Your task to perform on an android device: open app "Nova Launcher" (install if not already installed) and go to login screen Image 0: 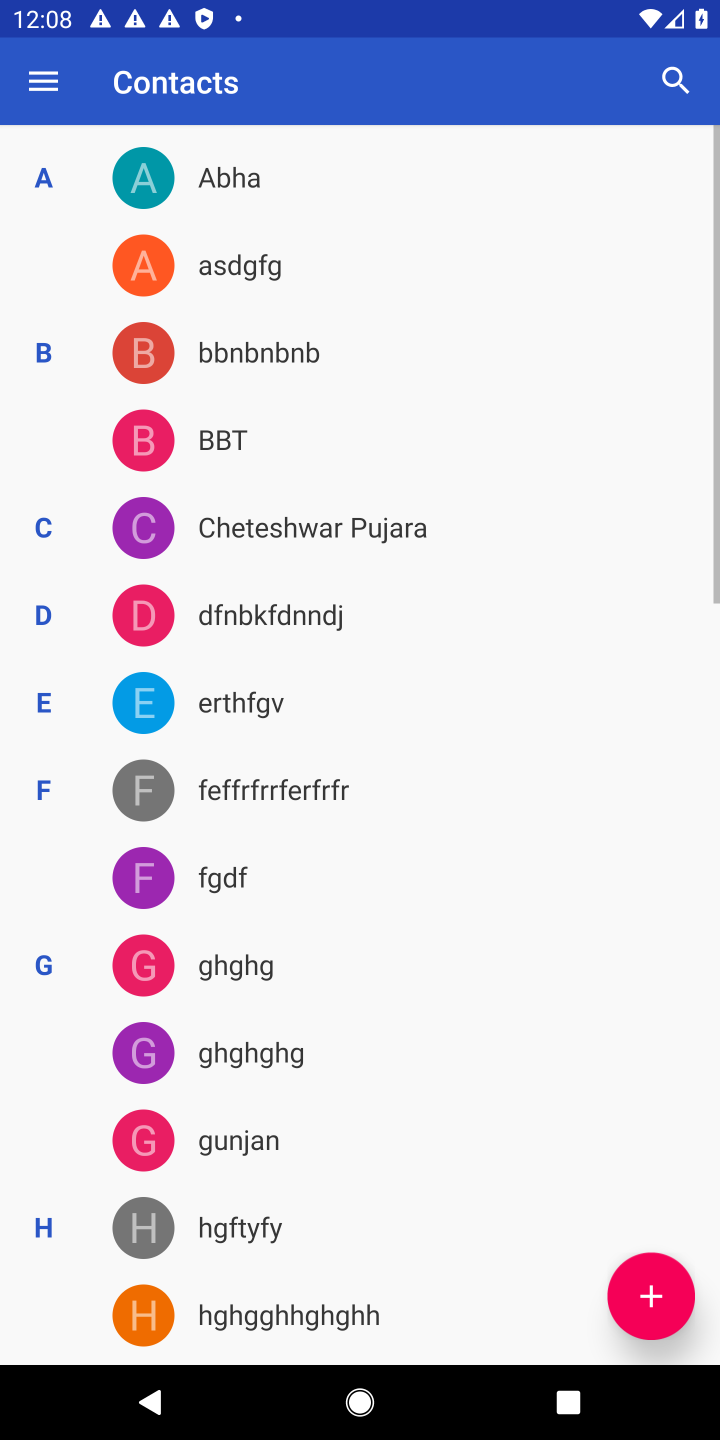
Step 0: press back button
Your task to perform on an android device: open app "Nova Launcher" (install if not already installed) and go to login screen Image 1: 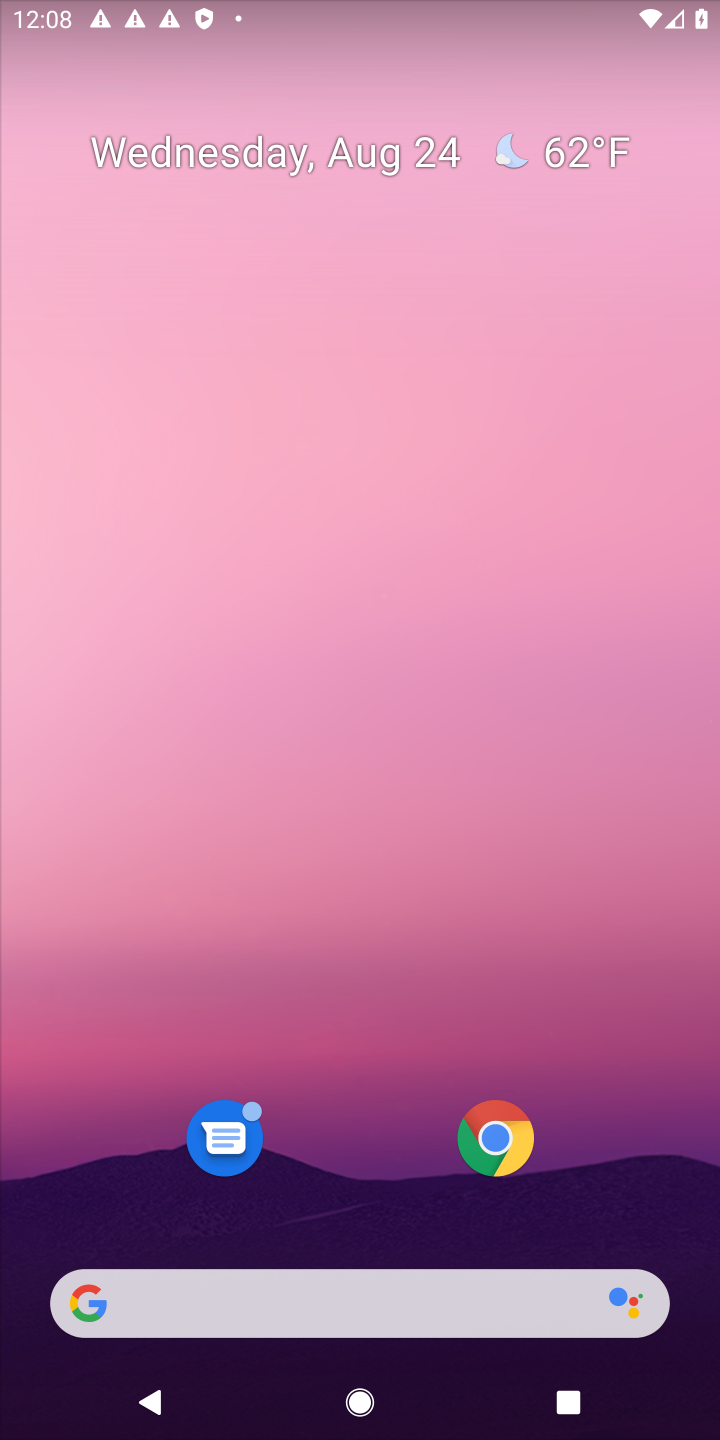
Step 1: drag from (382, 950) to (420, 133)
Your task to perform on an android device: open app "Nova Launcher" (install if not already installed) and go to login screen Image 2: 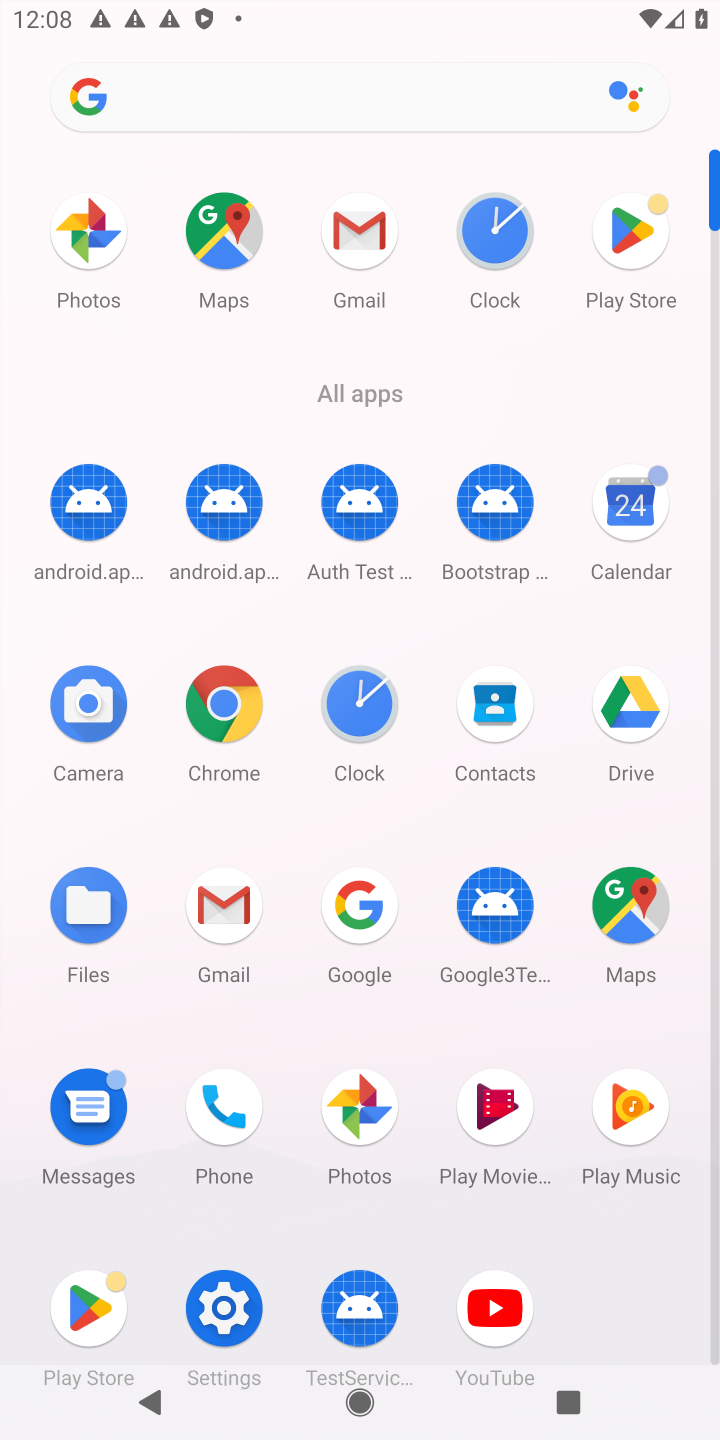
Step 2: click (618, 228)
Your task to perform on an android device: open app "Nova Launcher" (install if not already installed) and go to login screen Image 3: 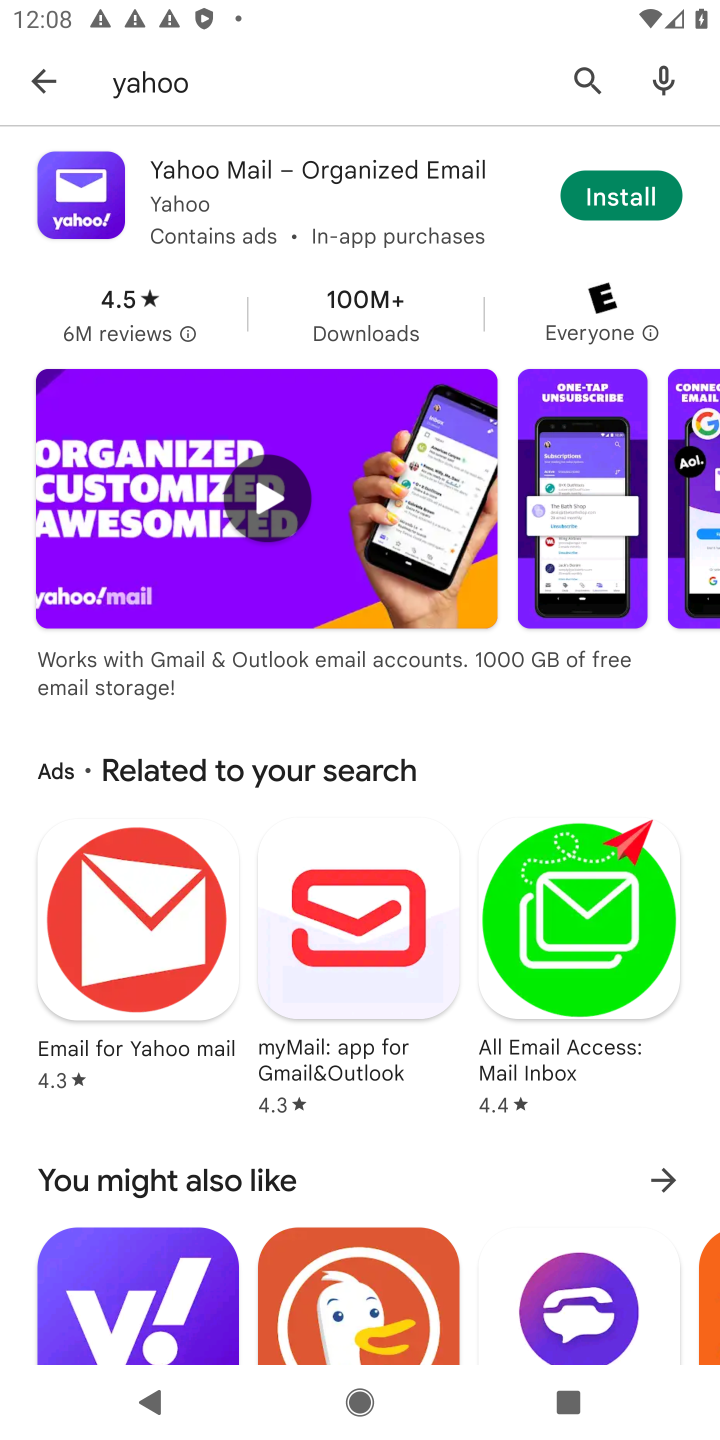
Step 3: click (578, 76)
Your task to perform on an android device: open app "Nova Launcher" (install if not already installed) and go to login screen Image 4: 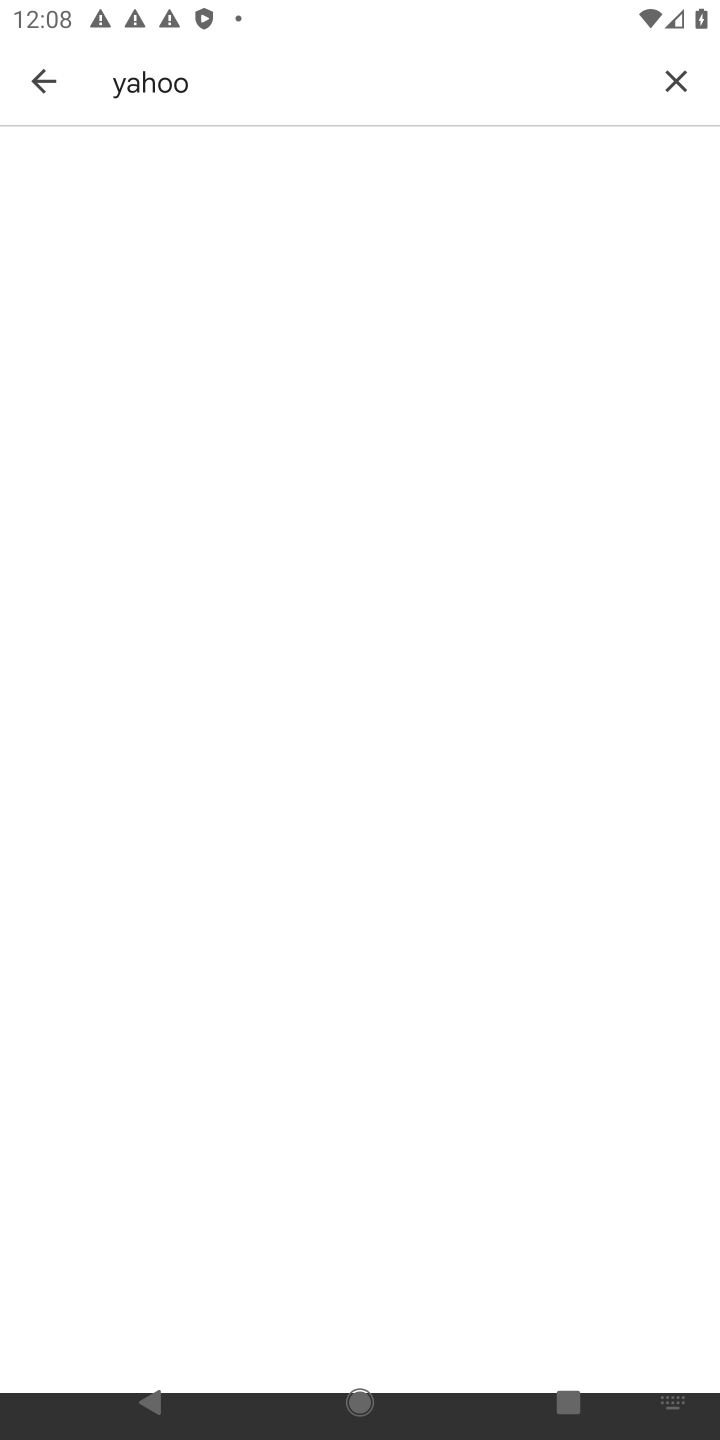
Step 4: click (662, 78)
Your task to perform on an android device: open app "Nova Launcher" (install if not already installed) and go to login screen Image 5: 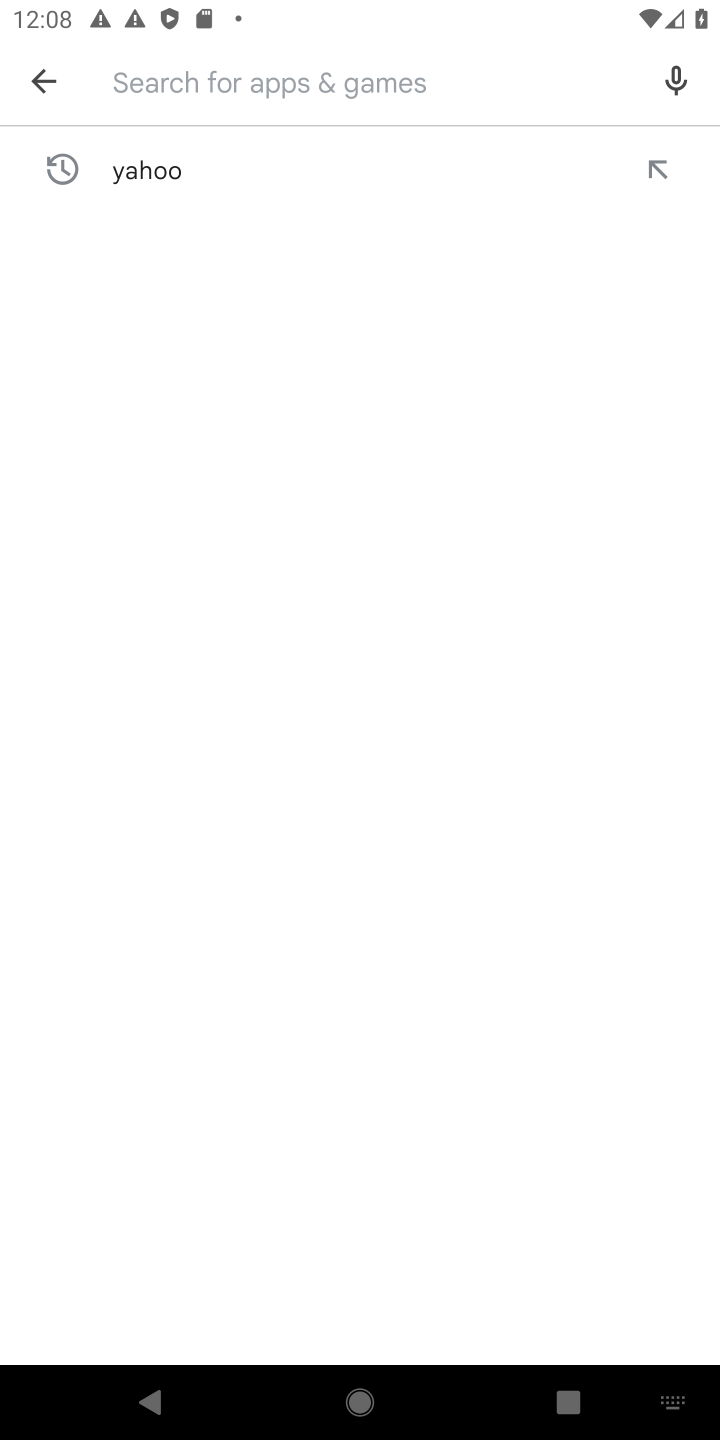
Step 5: click (221, 90)
Your task to perform on an android device: open app "Nova Launcher" (install if not already installed) and go to login screen Image 6: 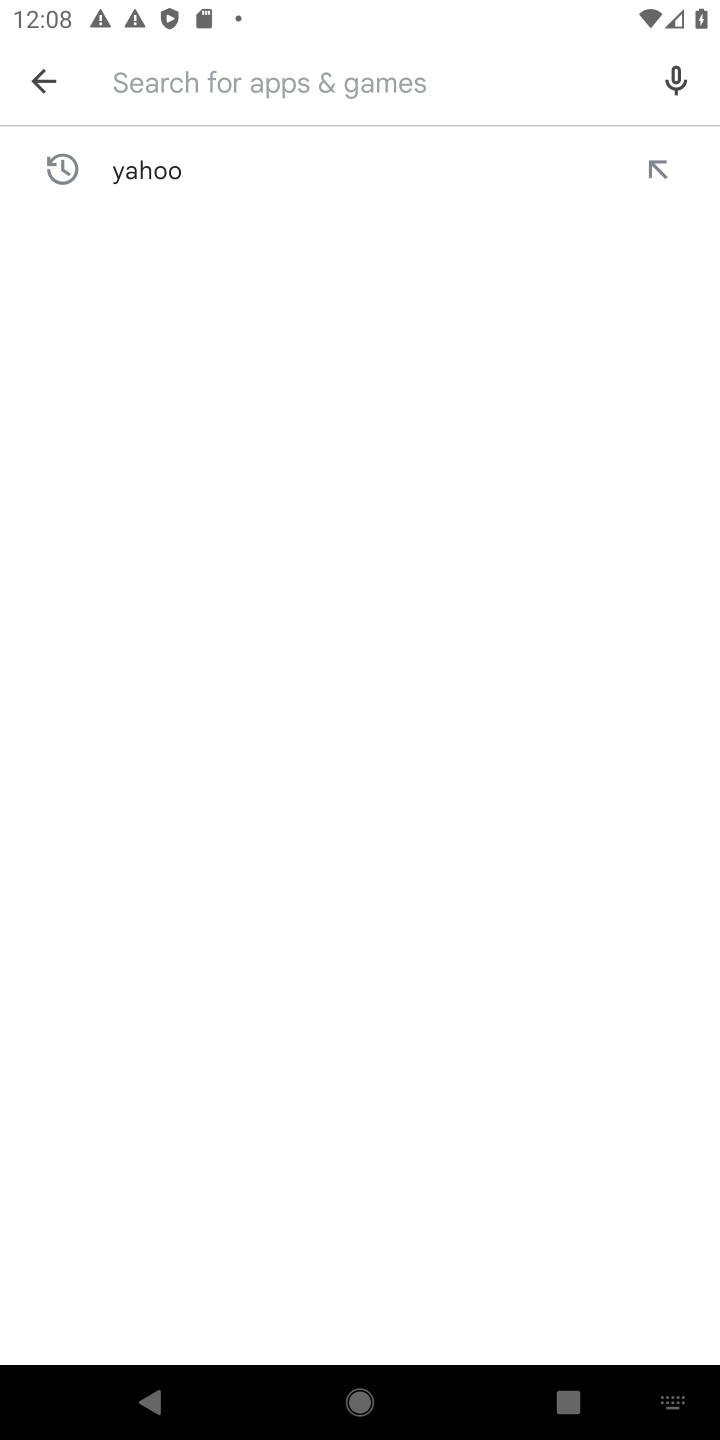
Step 6: type "Nova Launcher"
Your task to perform on an android device: open app "Nova Launcher" (install if not already installed) and go to login screen Image 7: 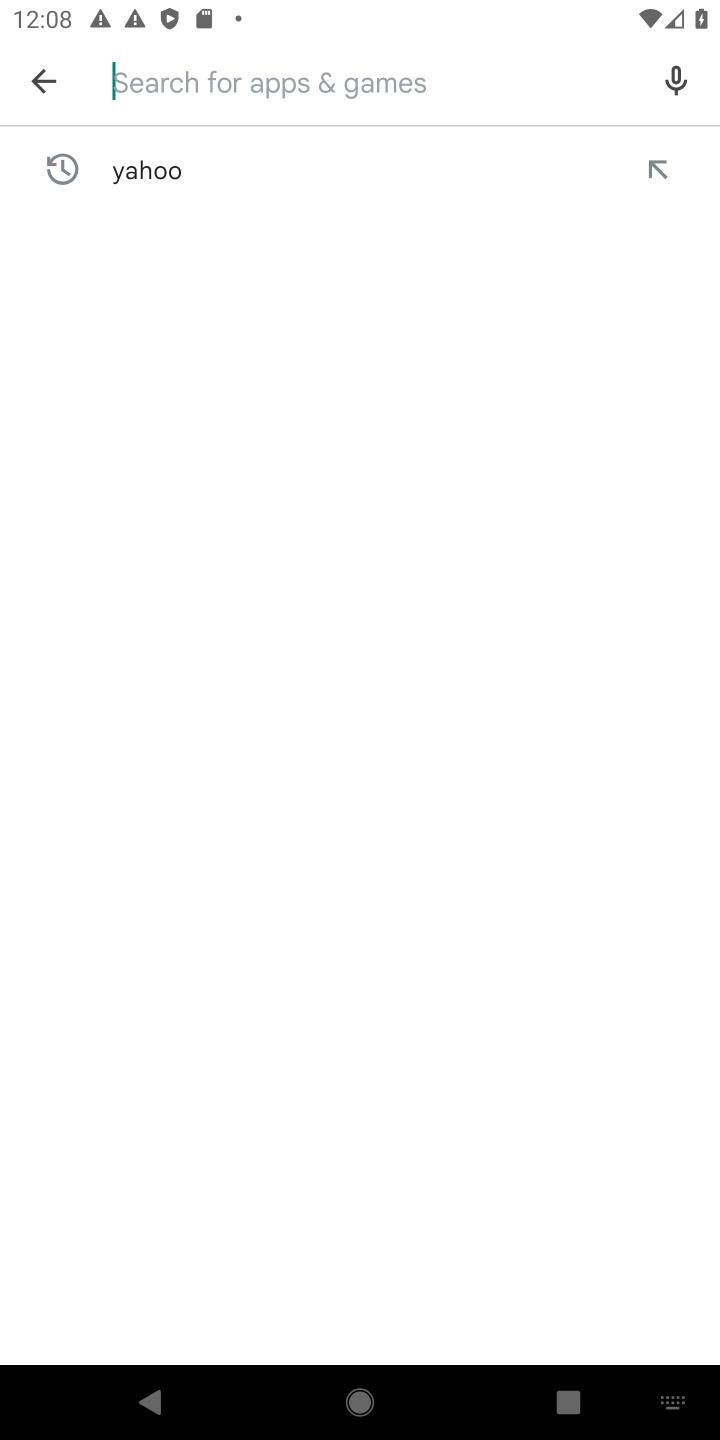
Step 7: click (312, 943)
Your task to perform on an android device: open app "Nova Launcher" (install if not already installed) and go to login screen Image 8: 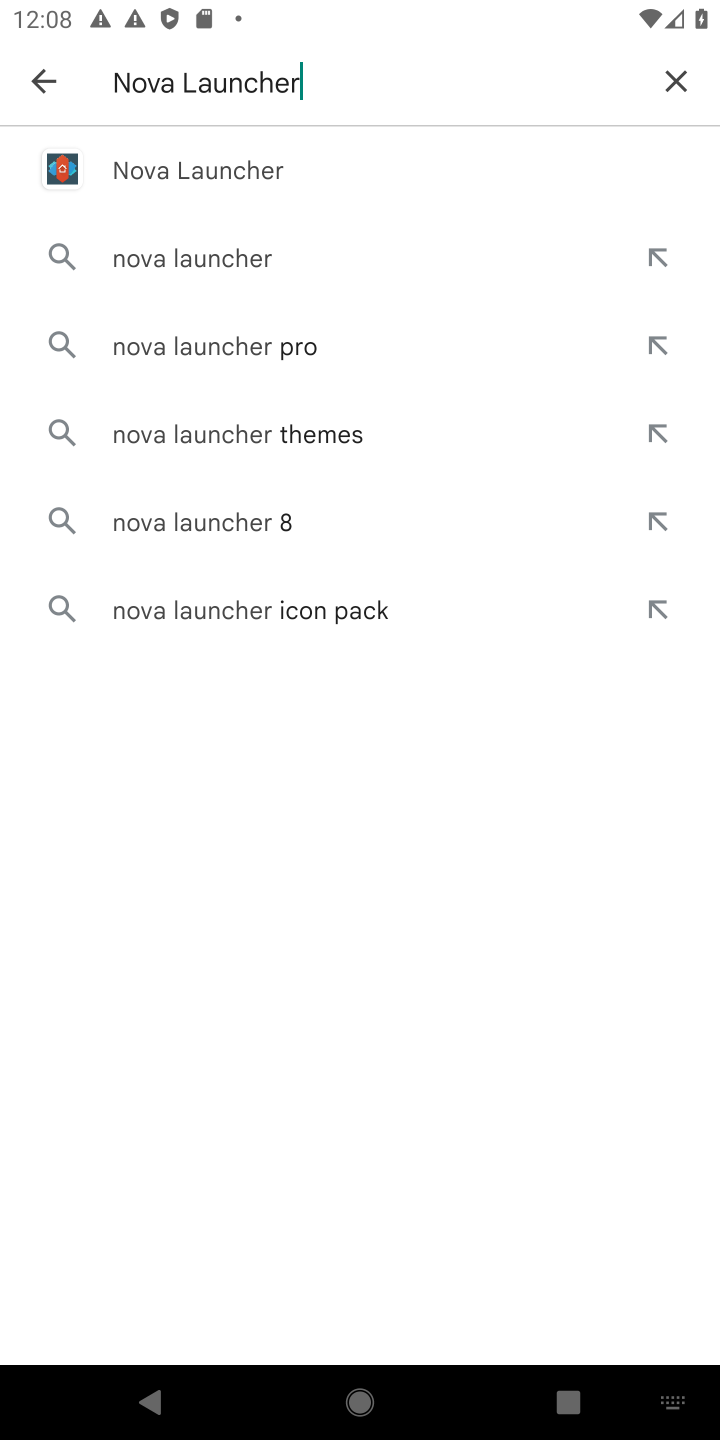
Step 8: click (335, 162)
Your task to perform on an android device: open app "Nova Launcher" (install if not already installed) and go to login screen Image 9: 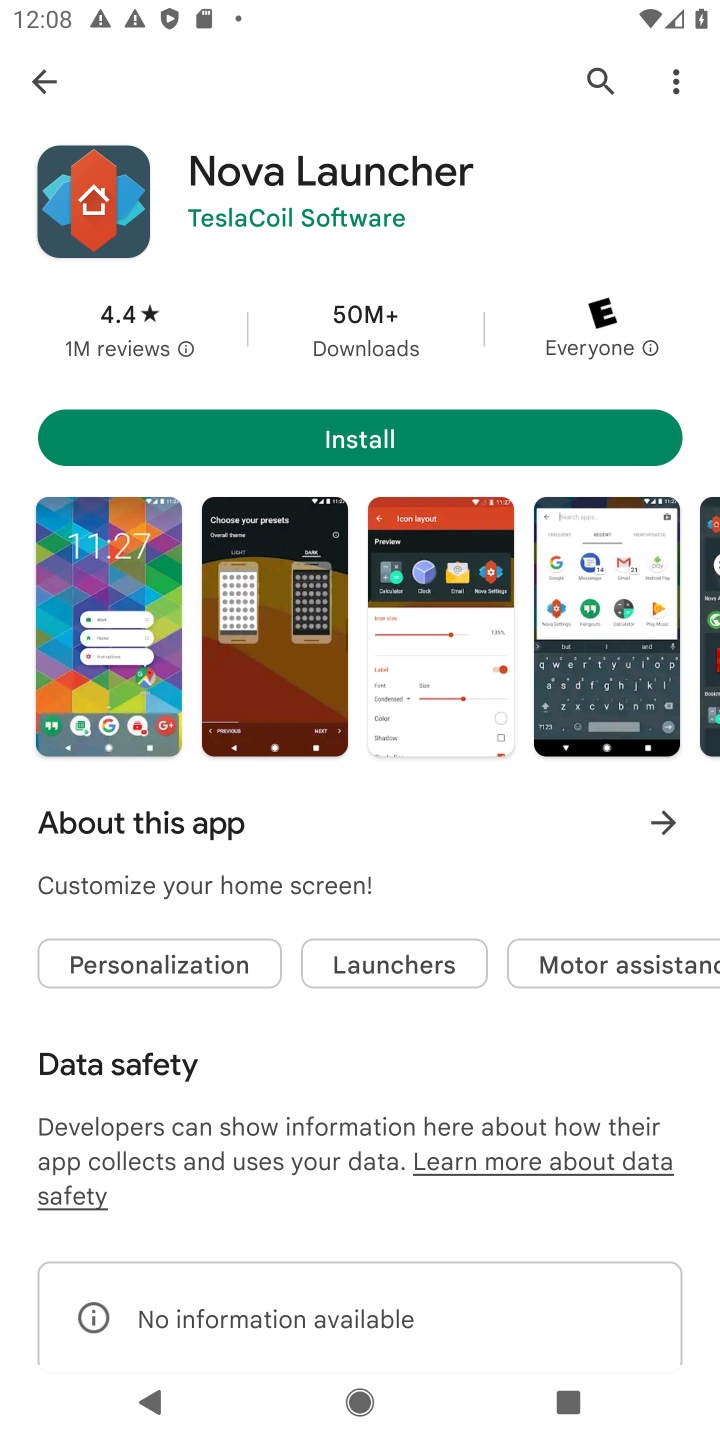
Step 9: click (308, 444)
Your task to perform on an android device: open app "Nova Launcher" (install if not already installed) and go to login screen Image 10: 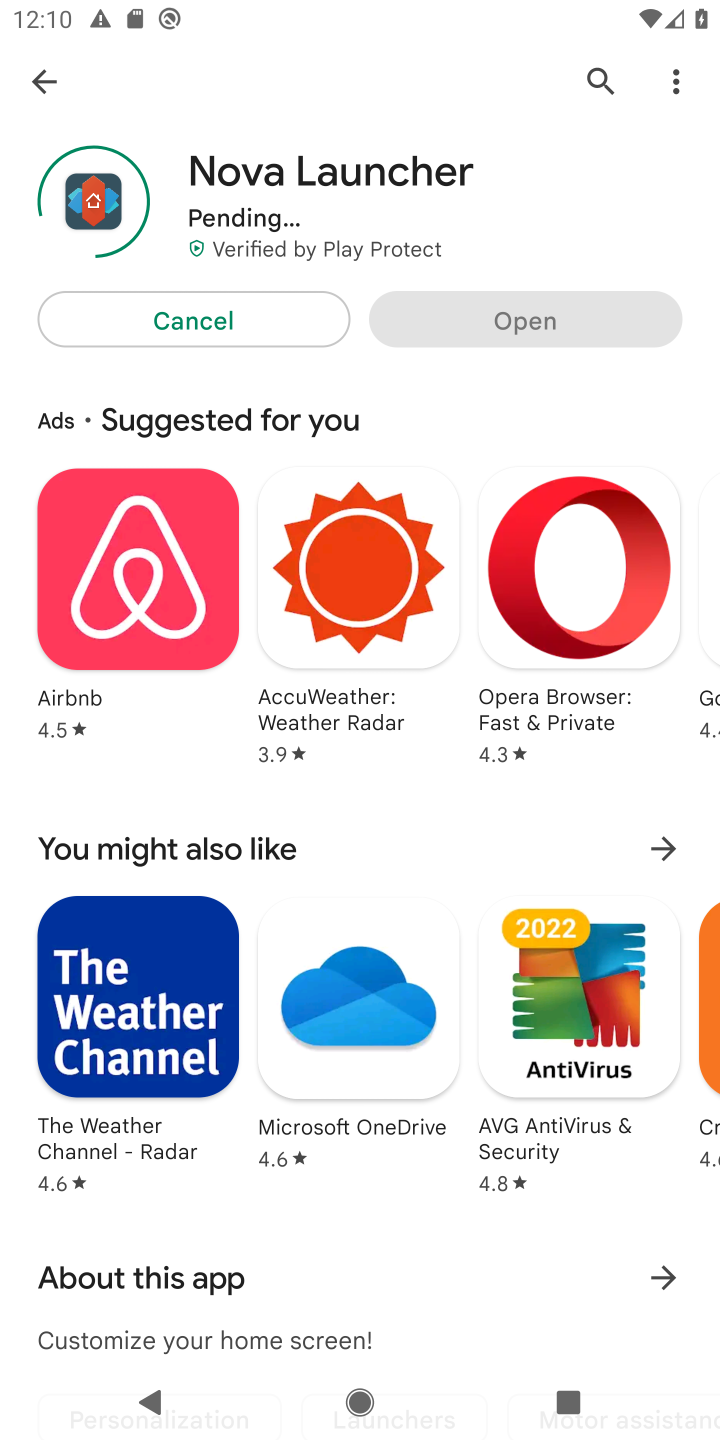
Step 10: click (597, 81)
Your task to perform on an android device: open app "Nova Launcher" (install if not already installed) and go to login screen Image 11: 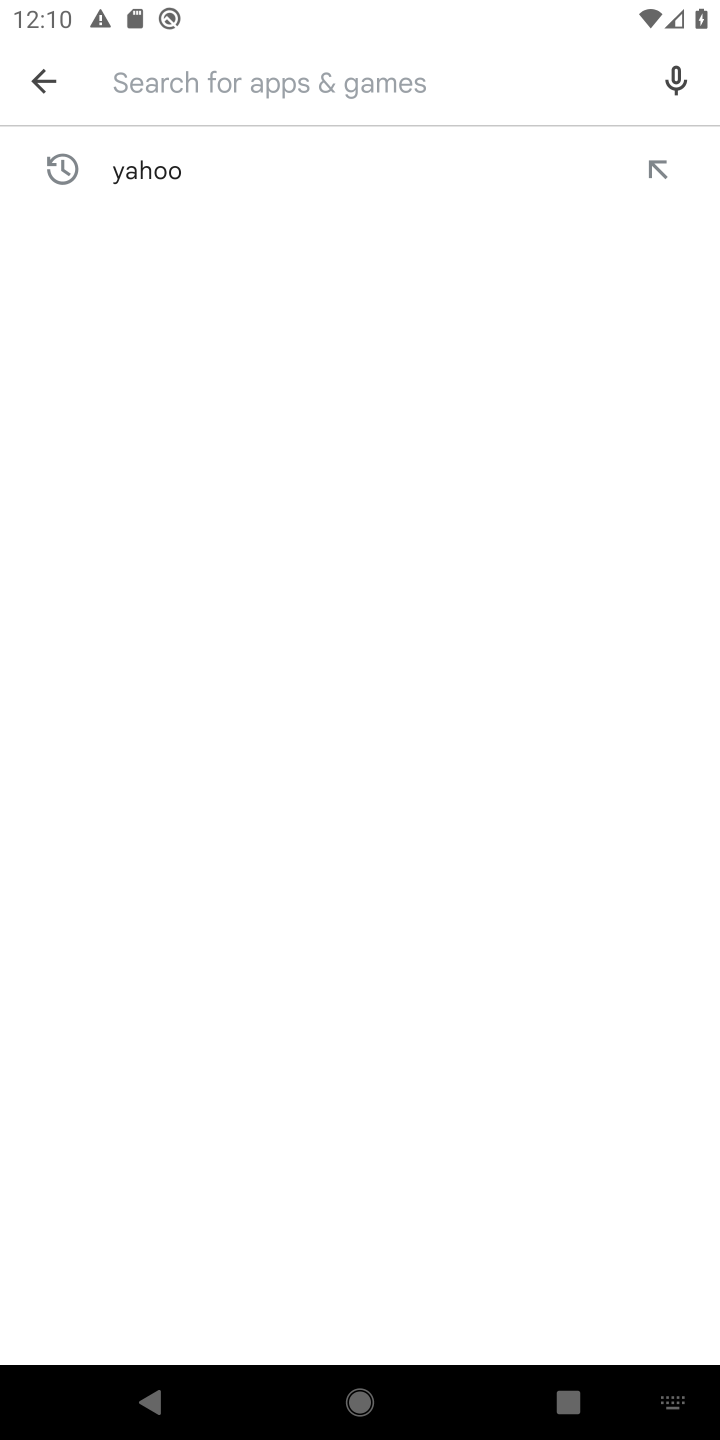
Step 11: click (144, 100)
Your task to perform on an android device: open app "Nova Launcher" (install if not already installed) and go to login screen Image 12: 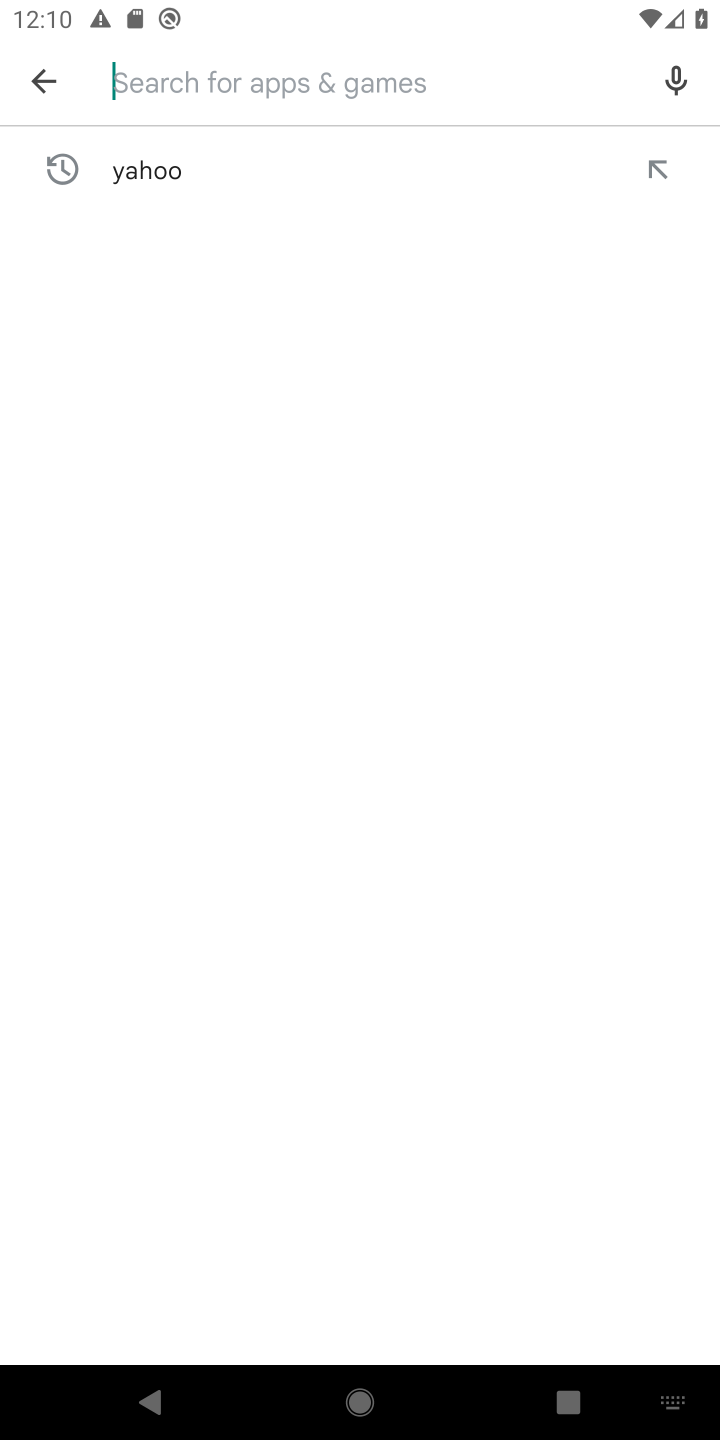
Step 12: type "Nova Launcher"
Your task to perform on an android device: open app "Nova Launcher" (install if not already installed) and go to login screen Image 13: 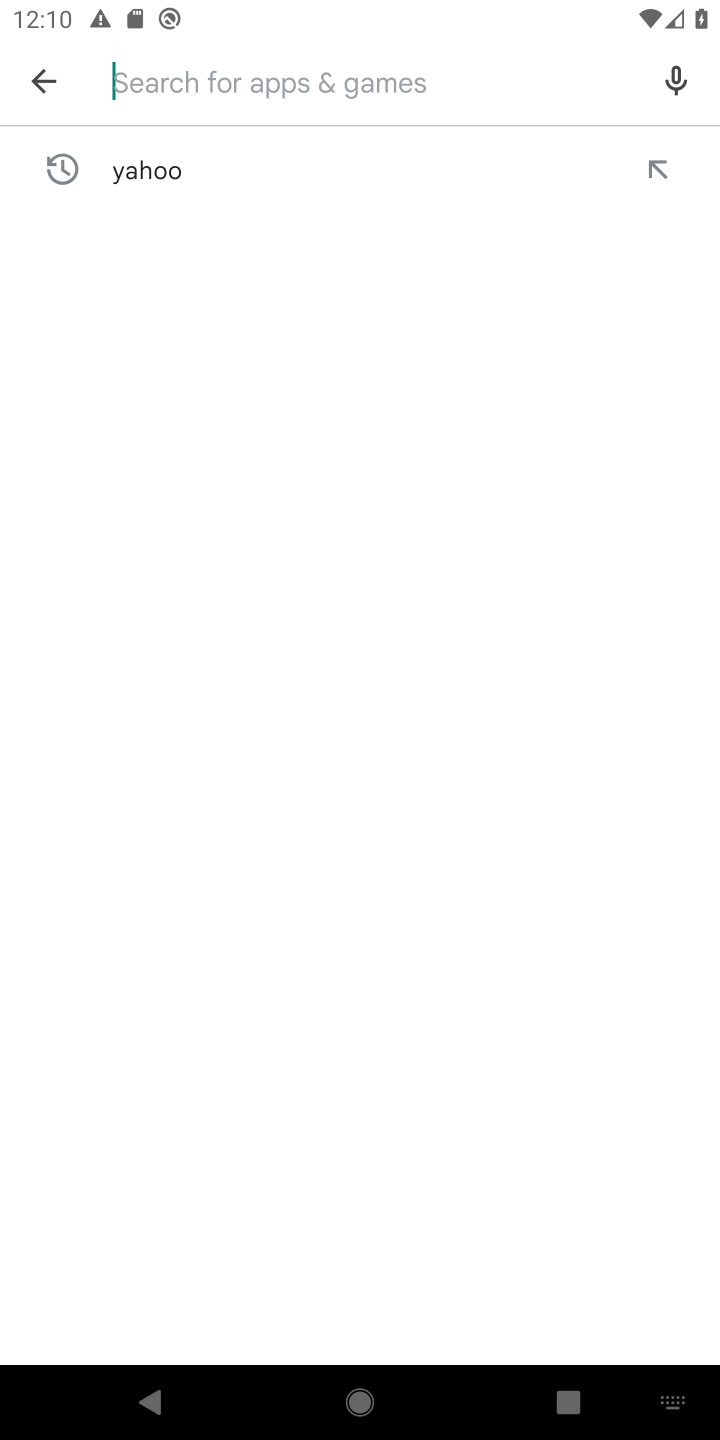
Step 13: click (240, 961)
Your task to perform on an android device: open app "Nova Launcher" (install if not already installed) and go to login screen Image 14: 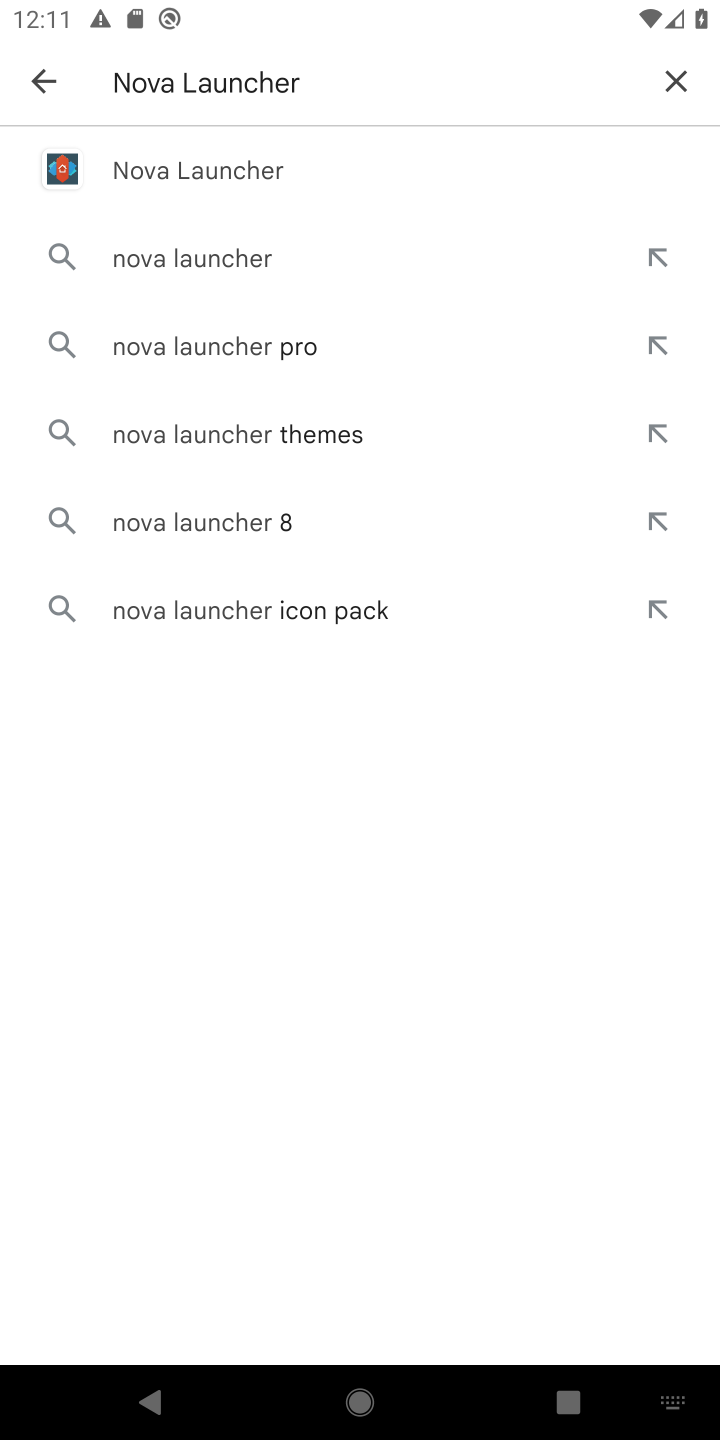
Step 14: click (235, 176)
Your task to perform on an android device: open app "Nova Launcher" (install if not already installed) and go to login screen Image 15: 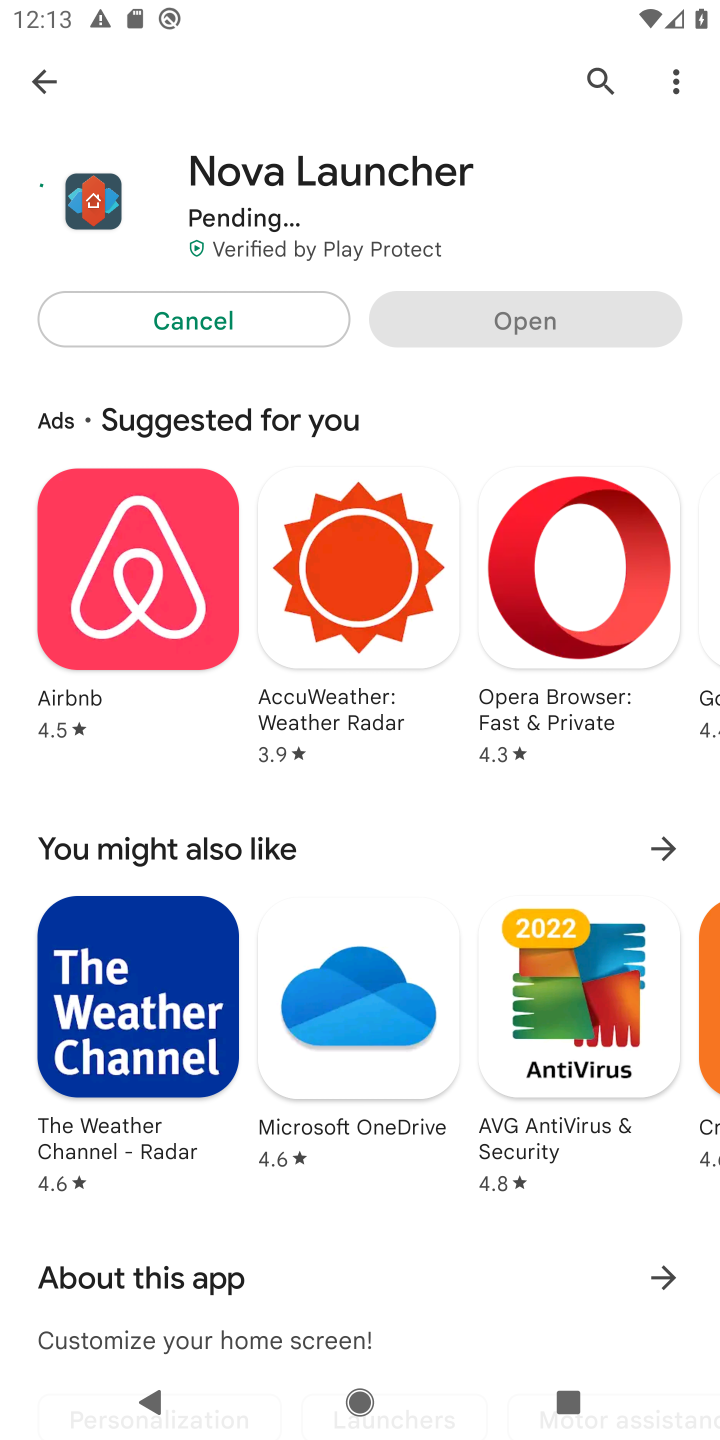
Step 15: task complete